Your task to perform on an android device: turn on priority inbox in the gmail app Image 0: 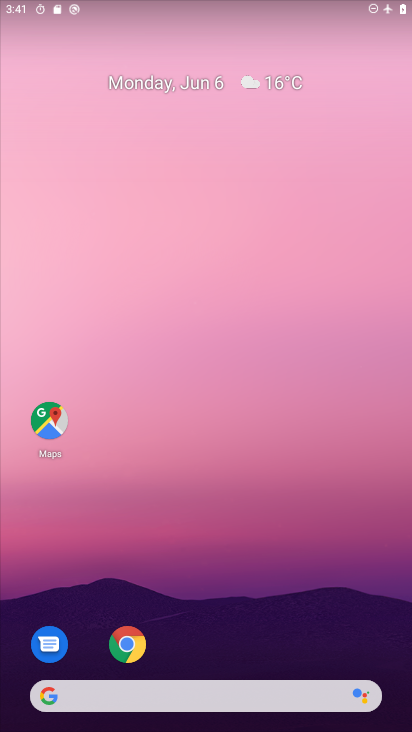
Step 0: drag from (281, 607) to (267, 40)
Your task to perform on an android device: turn on priority inbox in the gmail app Image 1: 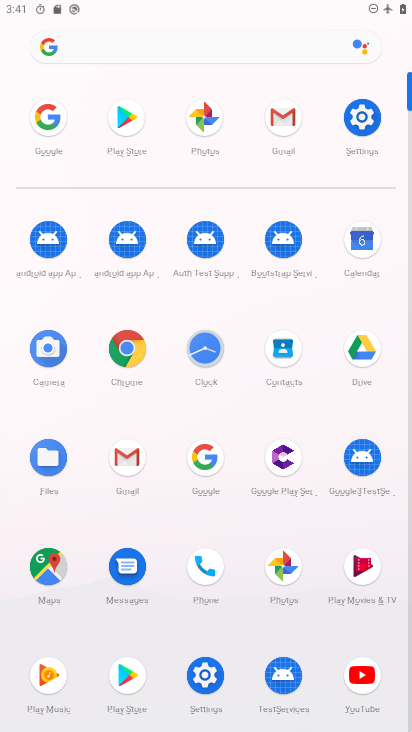
Step 1: click (282, 117)
Your task to perform on an android device: turn on priority inbox in the gmail app Image 2: 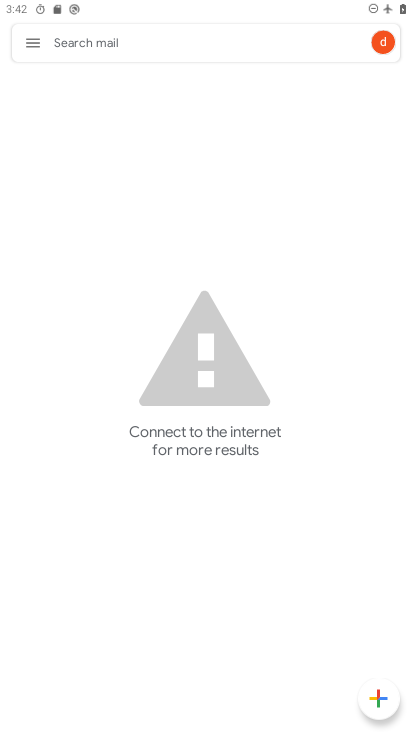
Step 2: click (34, 43)
Your task to perform on an android device: turn on priority inbox in the gmail app Image 3: 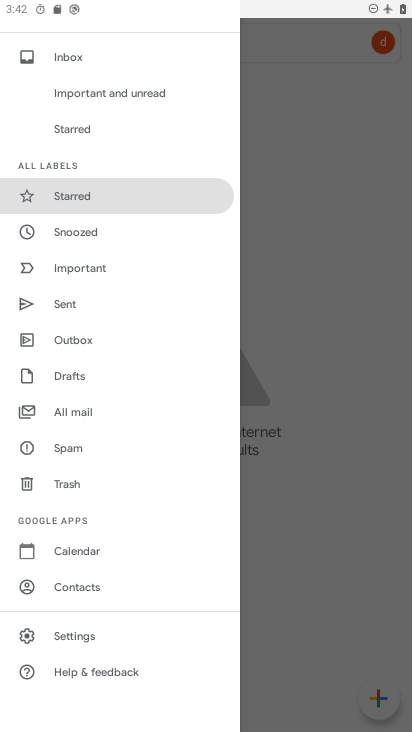
Step 3: click (84, 639)
Your task to perform on an android device: turn on priority inbox in the gmail app Image 4: 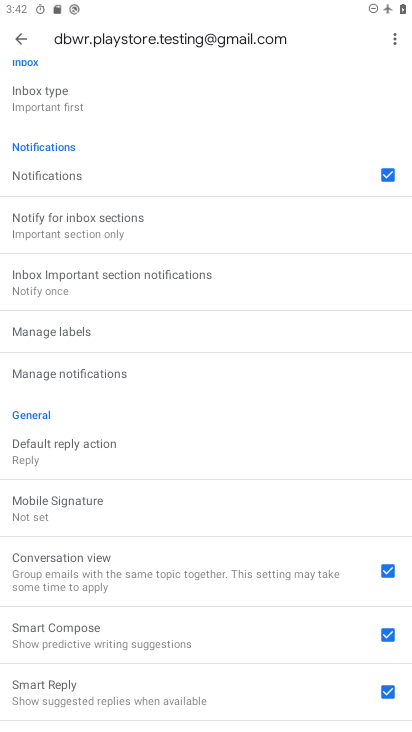
Step 4: click (55, 106)
Your task to perform on an android device: turn on priority inbox in the gmail app Image 5: 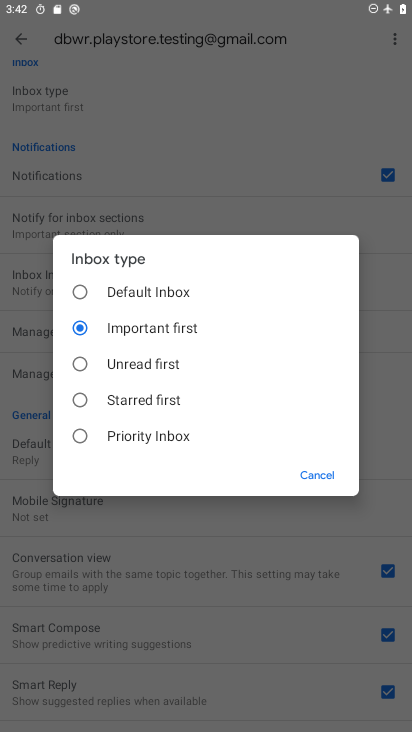
Step 5: click (75, 436)
Your task to perform on an android device: turn on priority inbox in the gmail app Image 6: 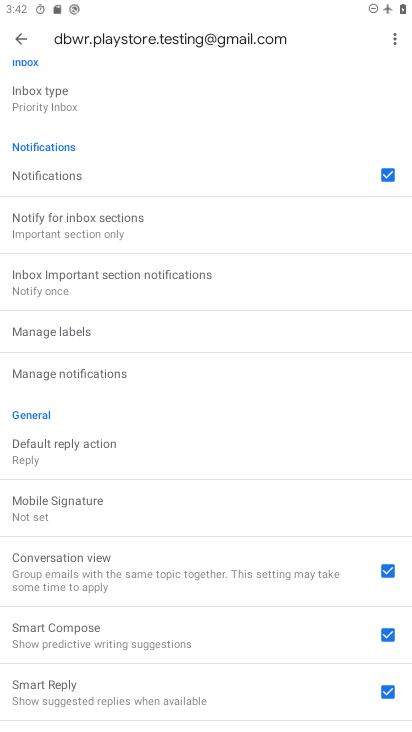
Step 6: task complete